Your task to perform on an android device: Show me popular videos on Youtube Image 0: 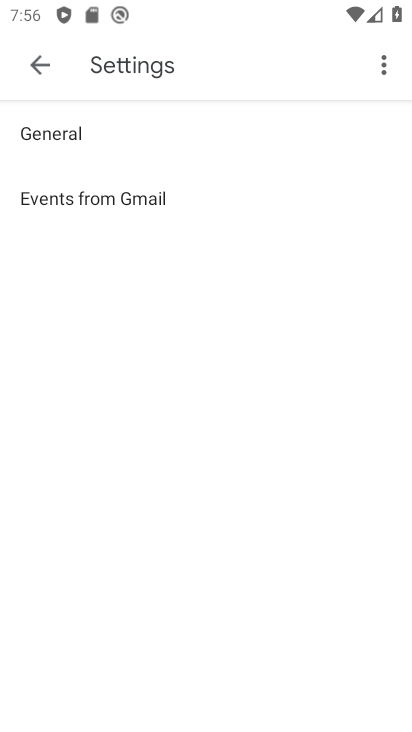
Step 0: press home button
Your task to perform on an android device: Show me popular videos on Youtube Image 1: 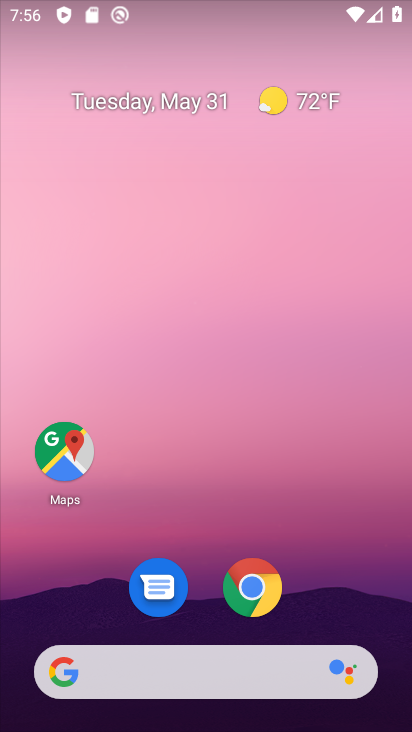
Step 1: drag from (211, 626) to (245, 112)
Your task to perform on an android device: Show me popular videos on Youtube Image 2: 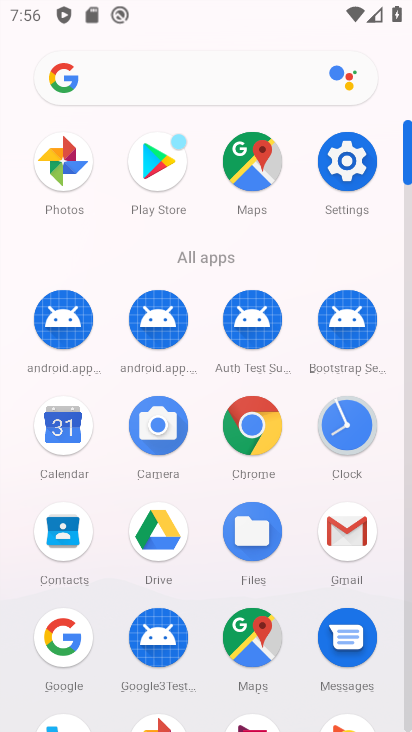
Step 2: drag from (196, 667) to (258, 183)
Your task to perform on an android device: Show me popular videos on Youtube Image 3: 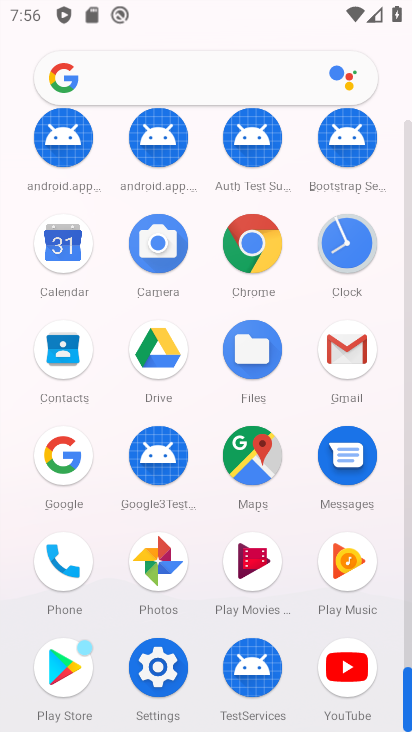
Step 3: click (355, 685)
Your task to perform on an android device: Show me popular videos on Youtube Image 4: 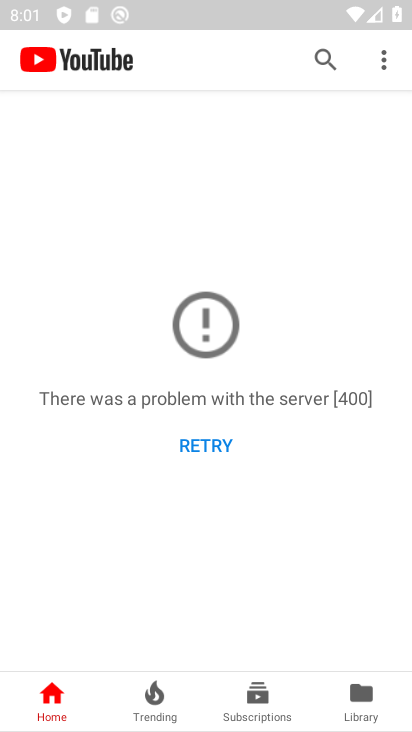
Step 4: task complete